Your task to perform on an android device: delete the emails in spam in the gmail app Image 0: 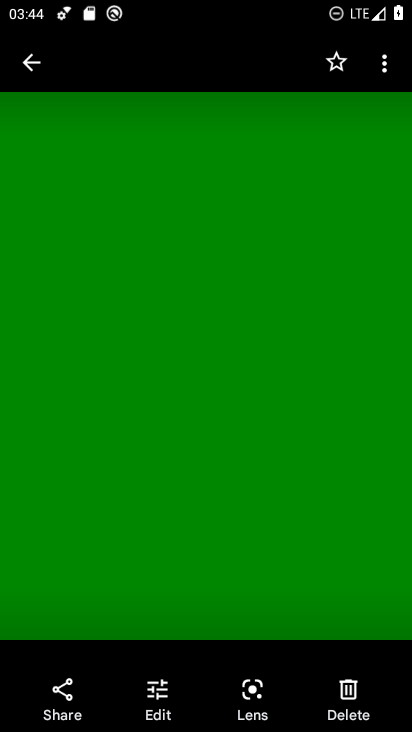
Step 0: press home button
Your task to perform on an android device: delete the emails in spam in the gmail app Image 1: 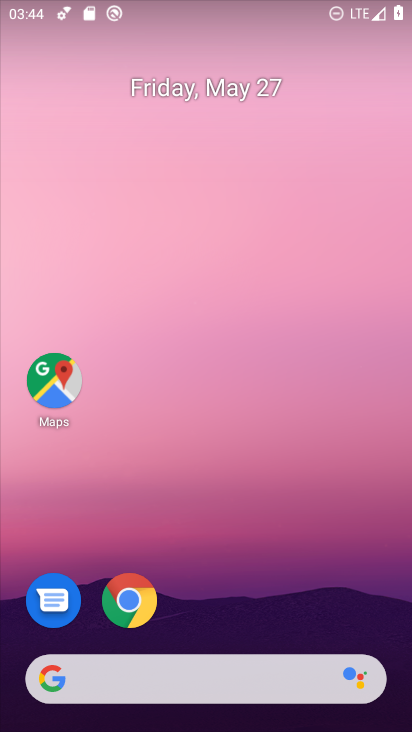
Step 1: drag from (204, 726) to (214, 105)
Your task to perform on an android device: delete the emails in spam in the gmail app Image 2: 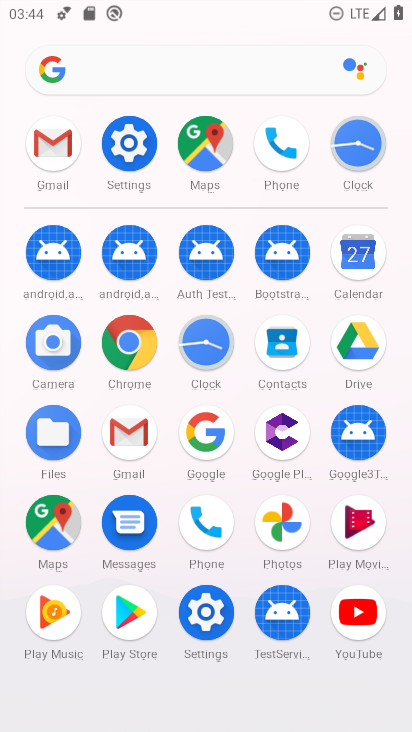
Step 2: click (124, 438)
Your task to perform on an android device: delete the emails in spam in the gmail app Image 3: 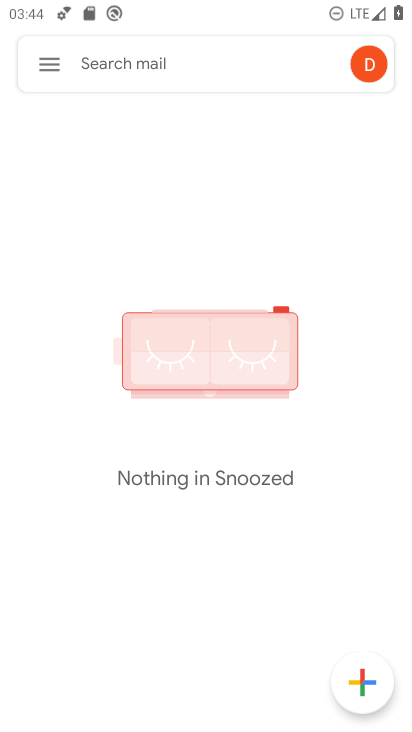
Step 3: click (50, 62)
Your task to perform on an android device: delete the emails in spam in the gmail app Image 4: 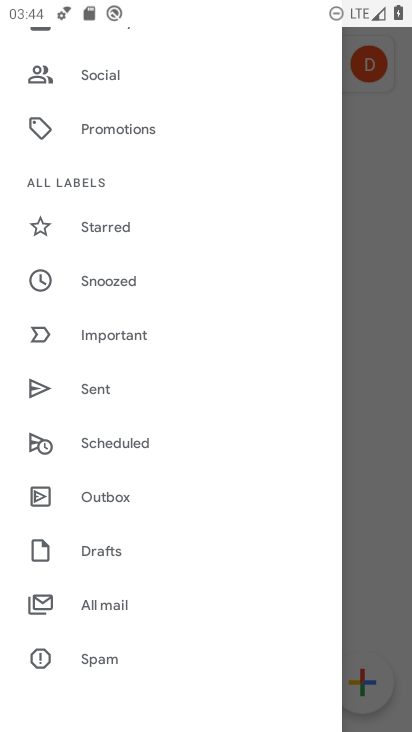
Step 4: drag from (112, 631) to (115, 401)
Your task to perform on an android device: delete the emails in spam in the gmail app Image 5: 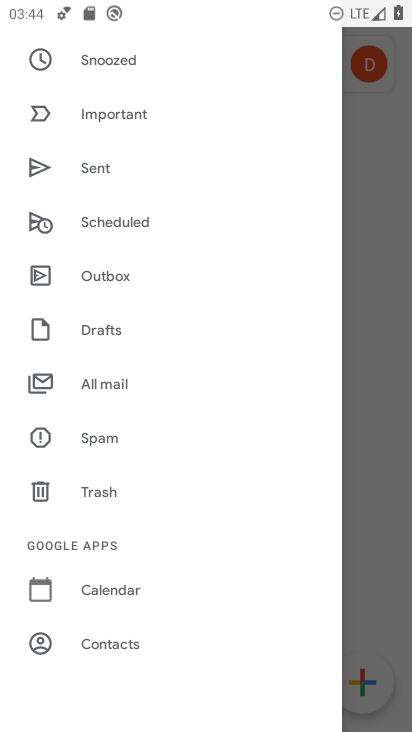
Step 5: click (99, 436)
Your task to perform on an android device: delete the emails in spam in the gmail app Image 6: 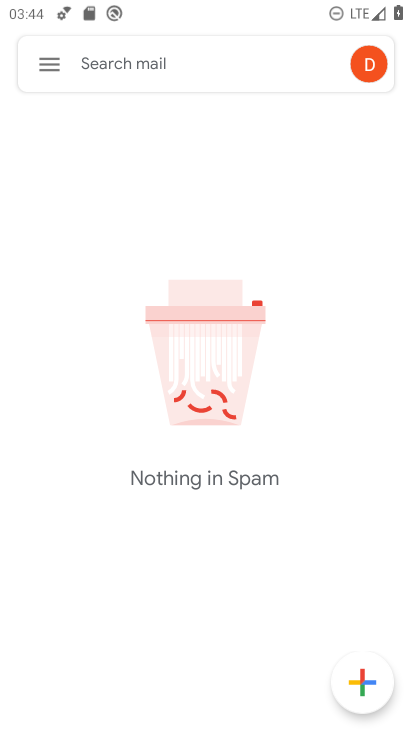
Step 6: task complete